Your task to perform on an android device: Search for pizza restaurants on Maps Image 0: 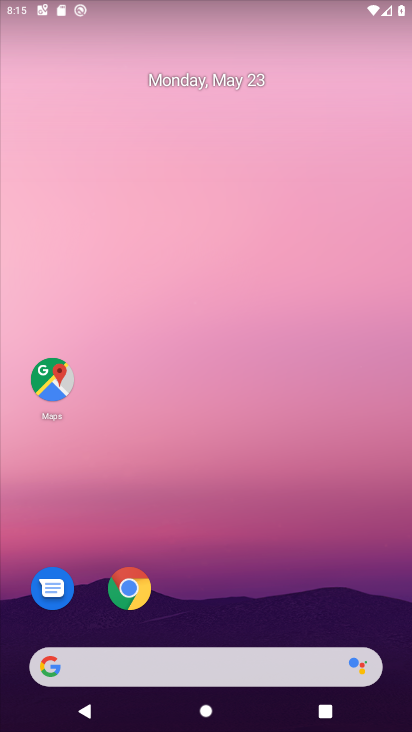
Step 0: click (53, 381)
Your task to perform on an android device: Search for pizza restaurants on Maps Image 1: 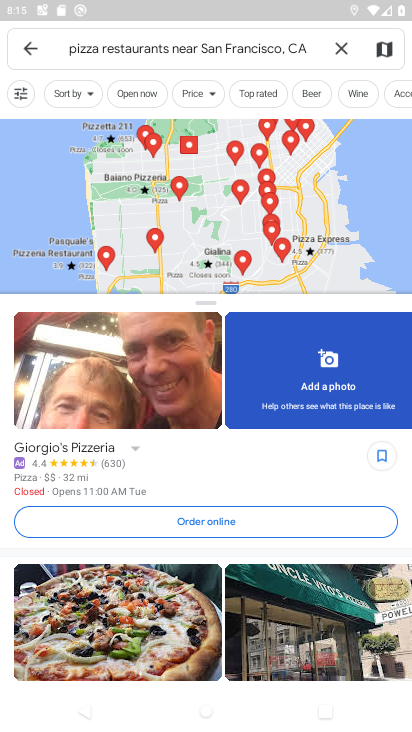
Step 1: task complete